Your task to perform on an android device: Open calendar and show me the first week of next month Image 0: 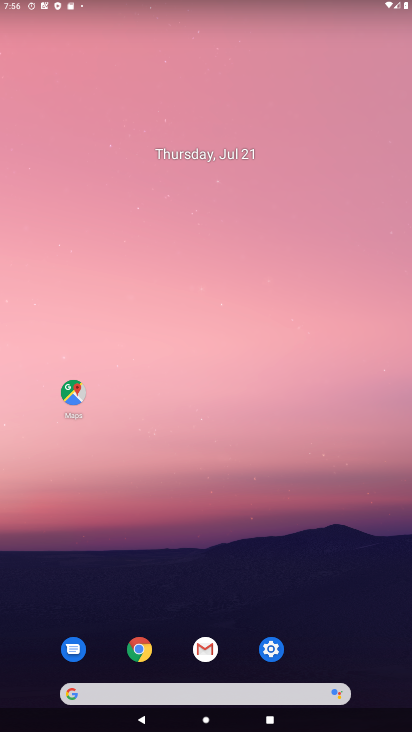
Step 0: drag from (248, 701) to (229, 240)
Your task to perform on an android device: Open calendar and show me the first week of next month Image 1: 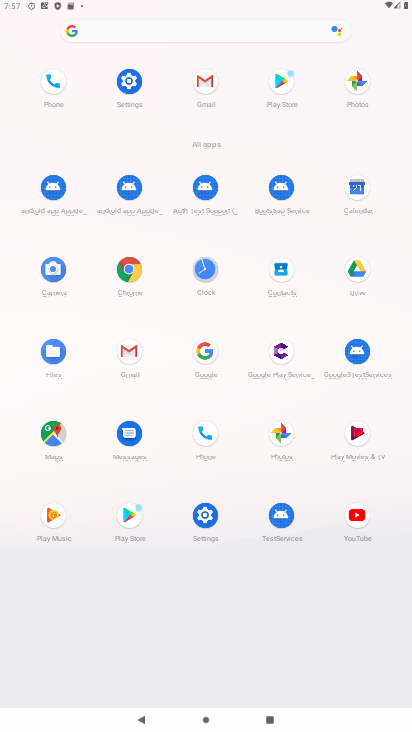
Step 1: click (348, 196)
Your task to perform on an android device: Open calendar and show me the first week of next month Image 2: 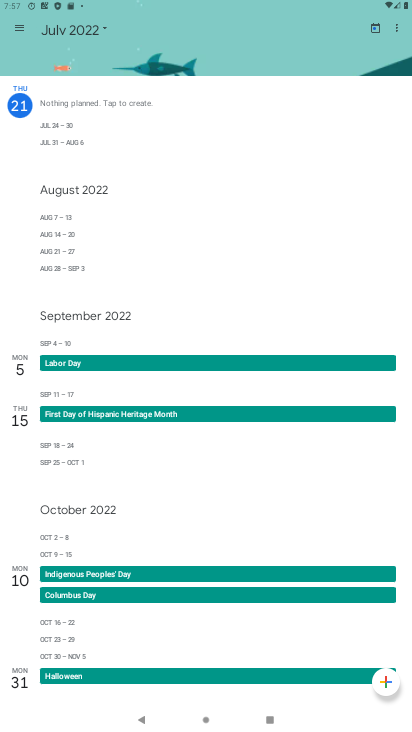
Step 2: click (11, 41)
Your task to perform on an android device: Open calendar and show me the first week of next month Image 3: 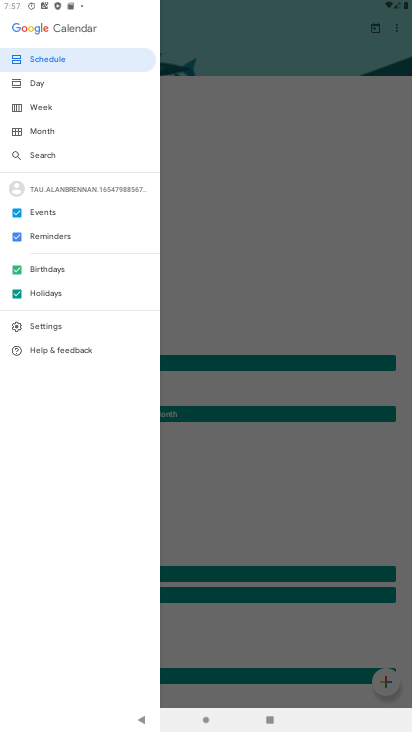
Step 3: click (53, 131)
Your task to perform on an android device: Open calendar and show me the first week of next month Image 4: 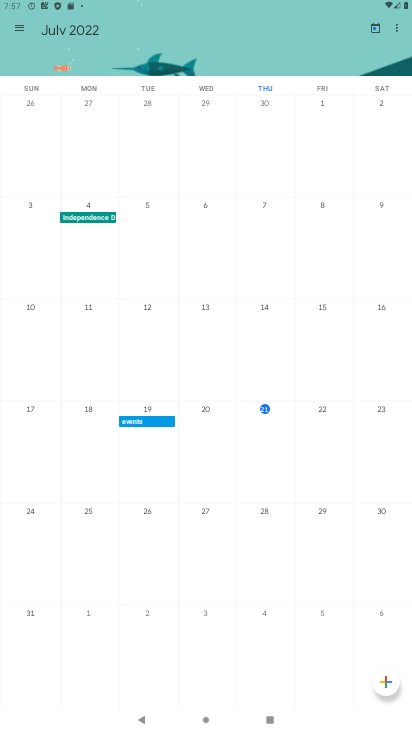
Step 4: drag from (396, 374) to (0, 367)
Your task to perform on an android device: Open calendar and show me the first week of next month Image 5: 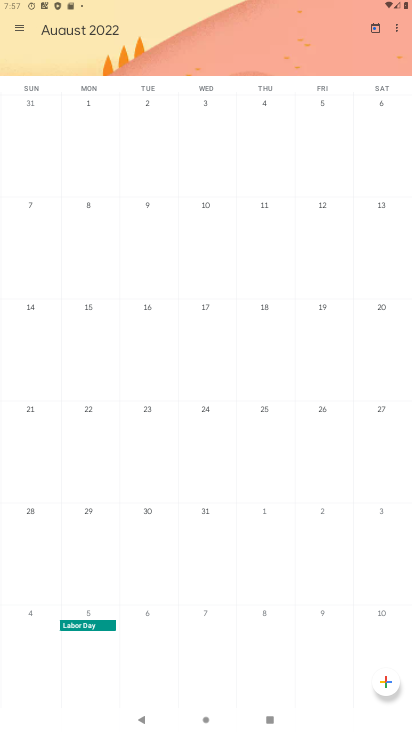
Step 5: click (84, 119)
Your task to perform on an android device: Open calendar and show me the first week of next month Image 6: 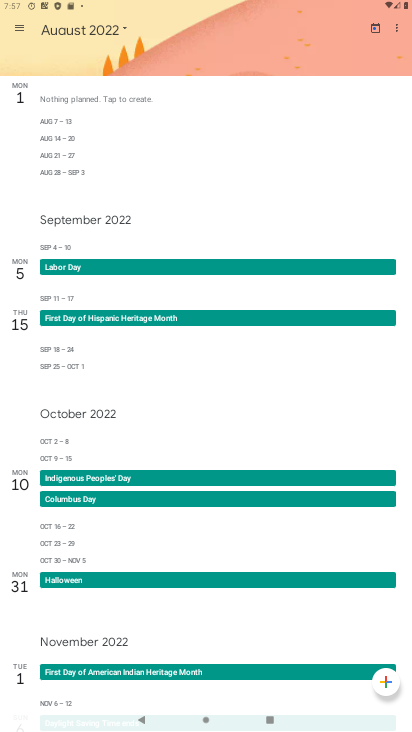
Step 6: task complete